Your task to perform on an android device: Go to Android settings Image 0: 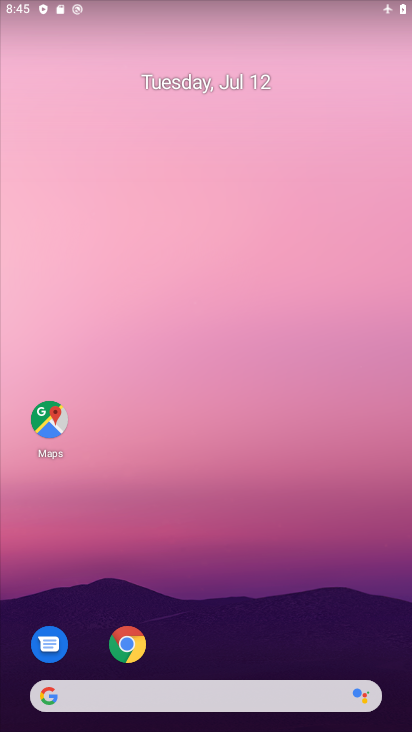
Step 0: drag from (188, 640) to (231, 31)
Your task to perform on an android device: Go to Android settings Image 1: 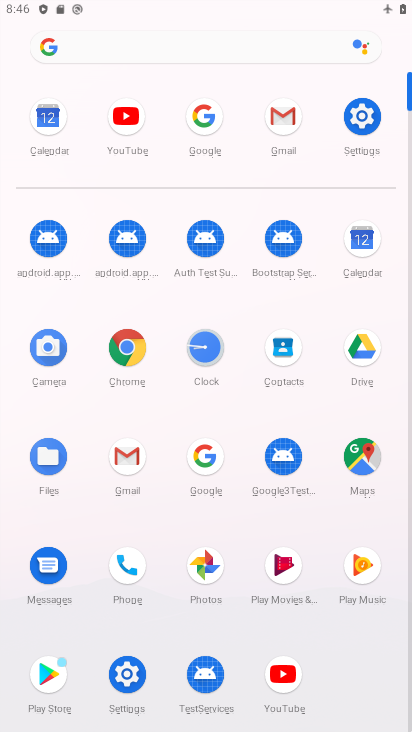
Step 1: click (365, 116)
Your task to perform on an android device: Go to Android settings Image 2: 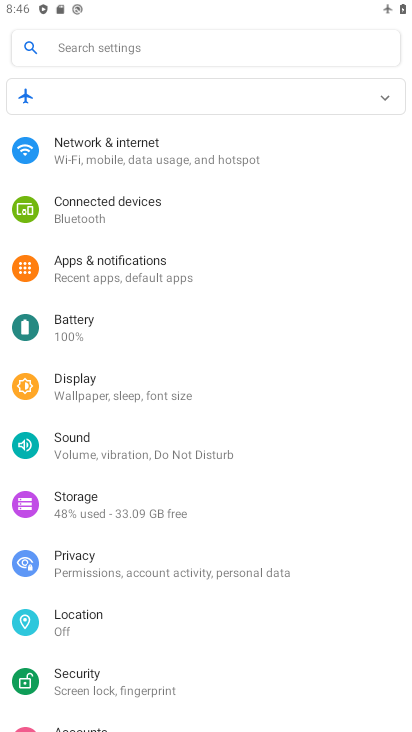
Step 2: task complete